Your task to perform on an android device: Do I have any events today? Image 0: 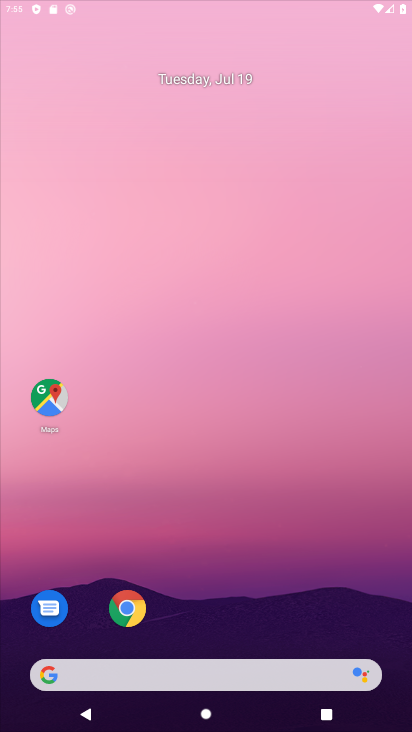
Step 0: drag from (203, 2) to (154, 34)
Your task to perform on an android device: Do I have any events today? Image 1: 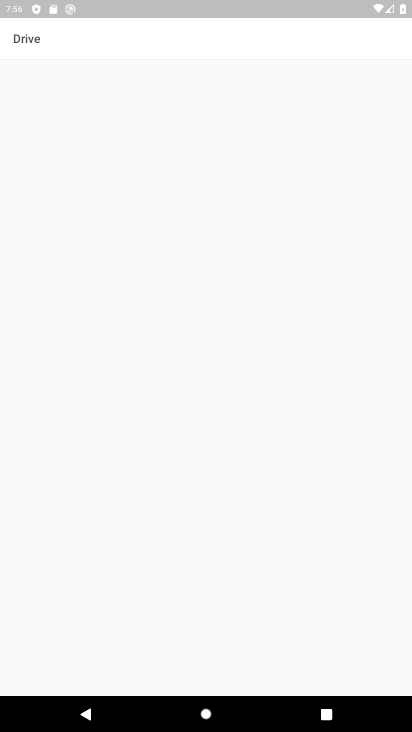
Step 1: press home button
Your task to perform on an android device: Do I have any events today? Image 2: 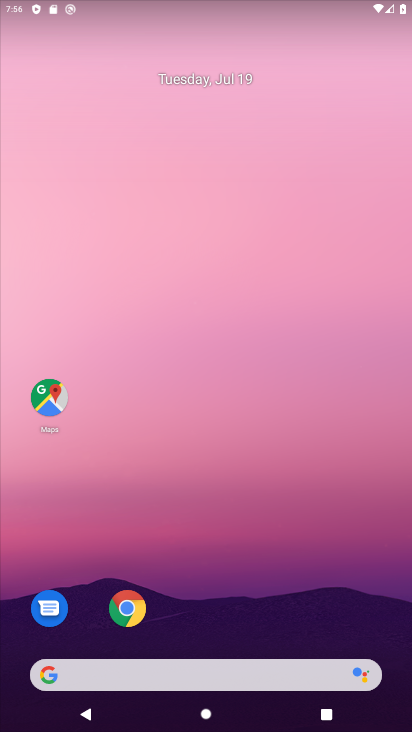
Step 2: drag from (220, 663) to (188, 222)
Your task to perform on an android device: Do I have any events today? Image 3: 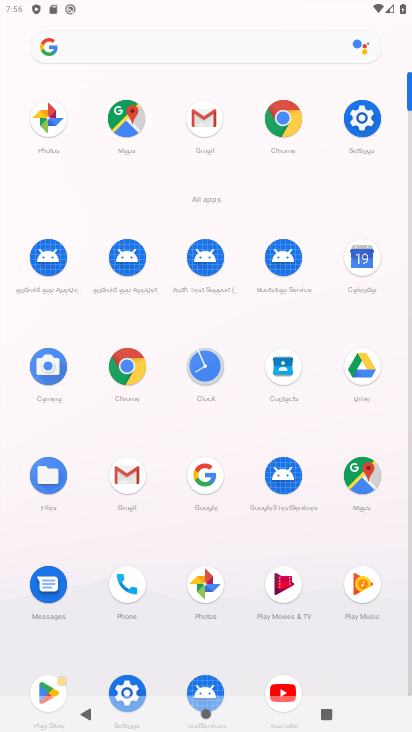
Step 3: click (362, 269)
Your task to perform on an android device: Do I have any events today? Image 4: 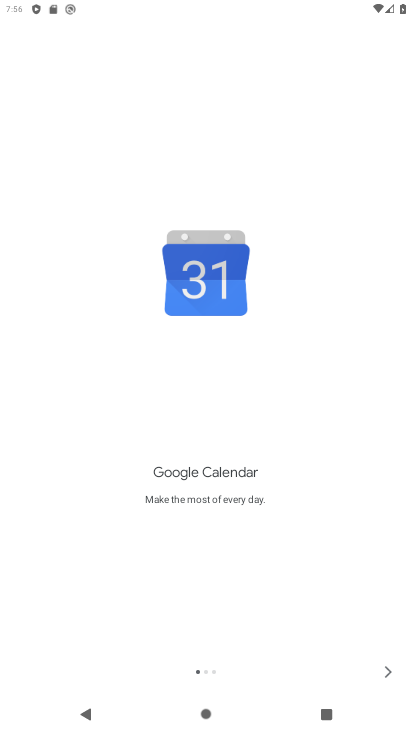
Step 4: click (389, 670)
Your task to perform on an android device: Do I have any events today? Image 5: 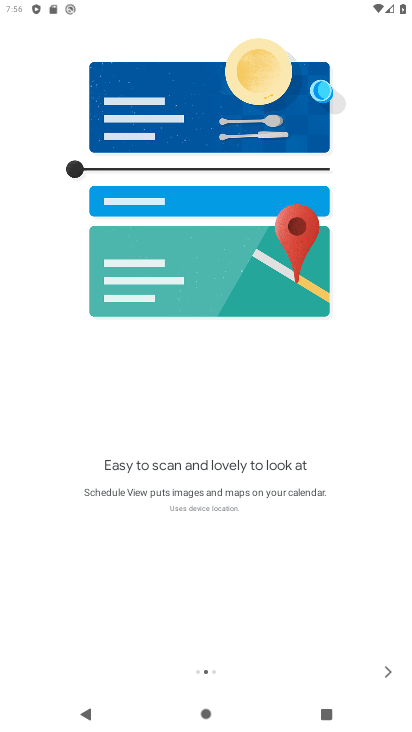
Step 5: click (389, 670)
Your task to perform on an android device: Do I have any events today? Image 6: 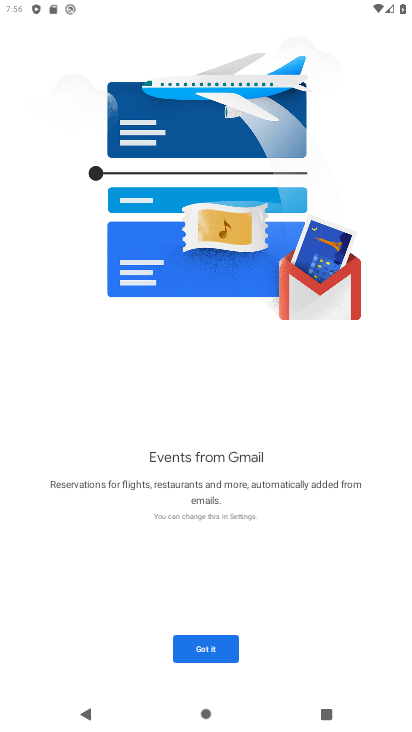
Step 6: click (175, 654)
Your task to perform on an android device: Do I have any events today? Image 7: 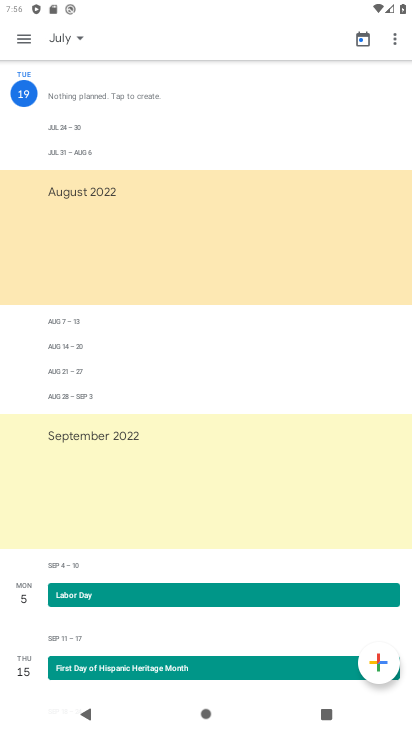
Step 7: click (24, 37)
Your task to perform on an android device: Do I have any events today? Image 8: 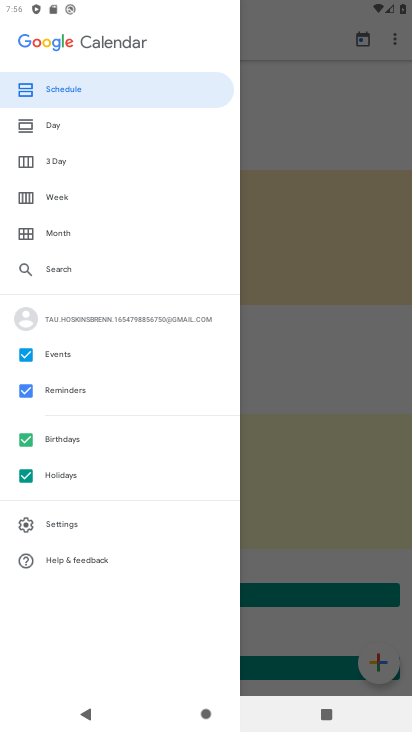
Step 8: click (67, 96)
Your task to perform on an android device: Do I have any events today? Image 9: 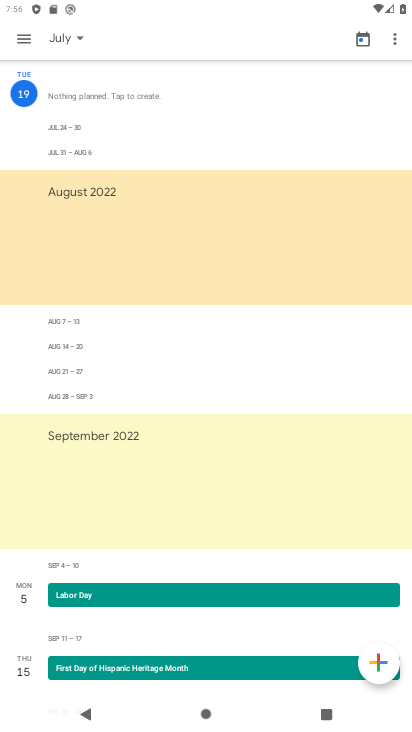
Step 9: task complete